Your task to perform on an android device: toggle translation in the chrome app Image 0: 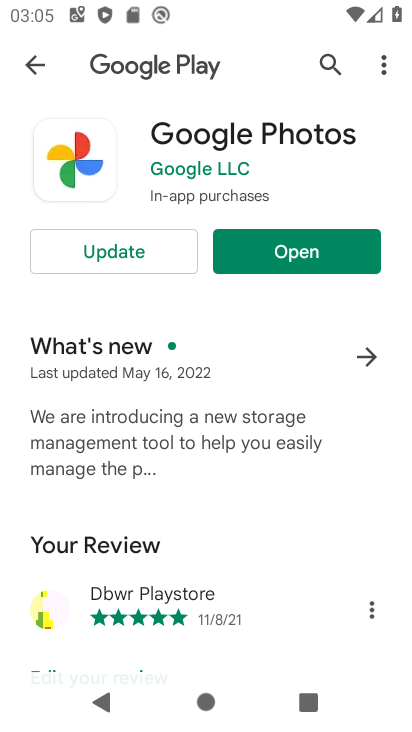
Step 0: press home button
Your task to perform on an android device: toggle translation in the chrome app Image 1: 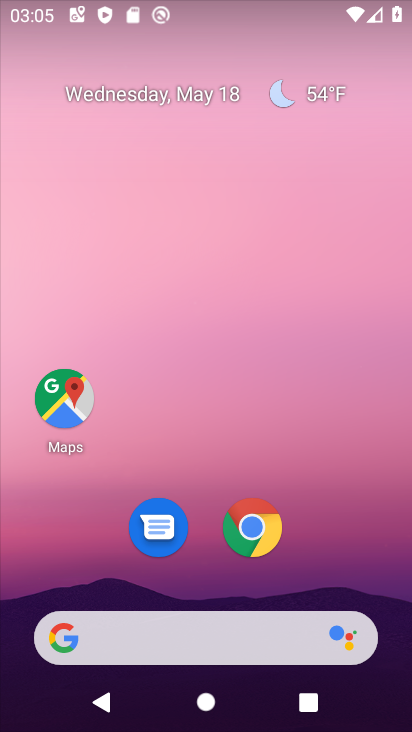
Step 1: click (249, 534)
Your task to perform on an android device: toggle translation in the chrome app Image 2: 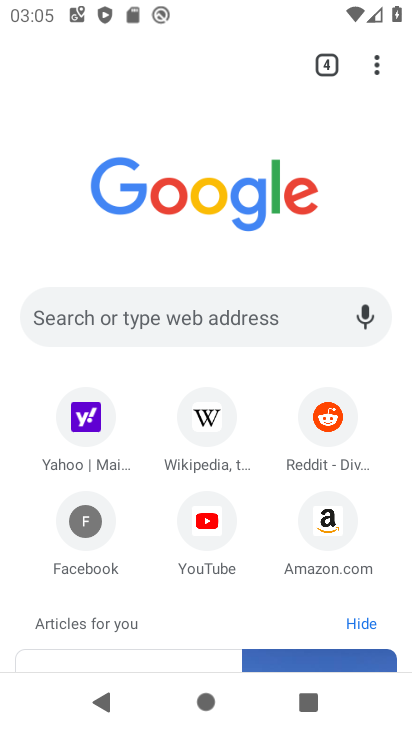
Step 2: click (377, 70)
Your task to perform on an android device: toggle translation in the chrome app Image 3: 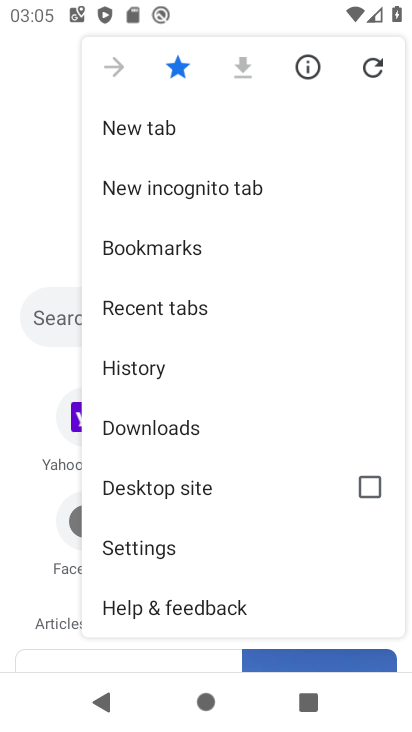
Step 3: click (135, 556)
Your task to perform on an android device: toggle translation in the chrome app Image 4: 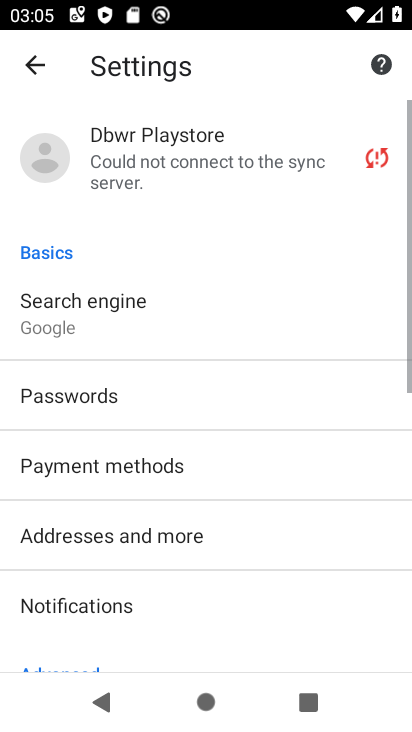
Step 4: drag from (137, 556) to (146, 102)
Your task to perform on an android device: toggle translation in the chrome app Image 5: 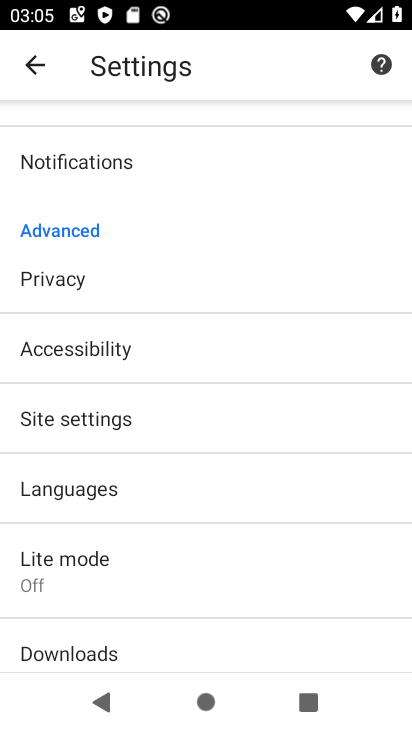
Step 5: click (87, 486)
Your task to perform on an android device: toggle translation in the chrome app Image 6: 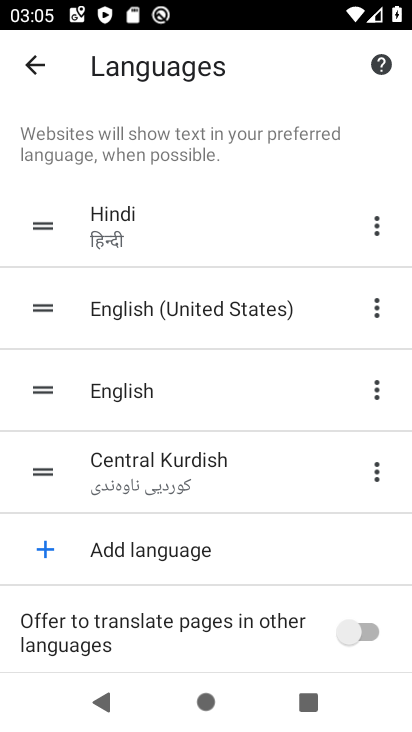
Step 6: click (356, 639)
Your task to perform on an android device: toggle translation in the chrome app Image 7: 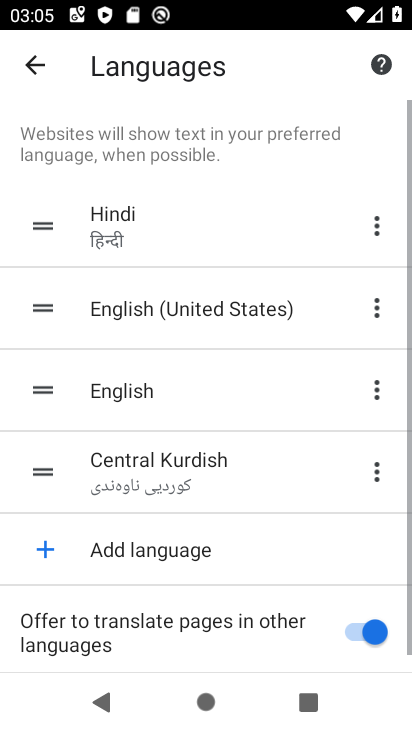
Step 7: task complete